Your task to perform on an android device: open chrome and create a bookmark for the current page Image 0: 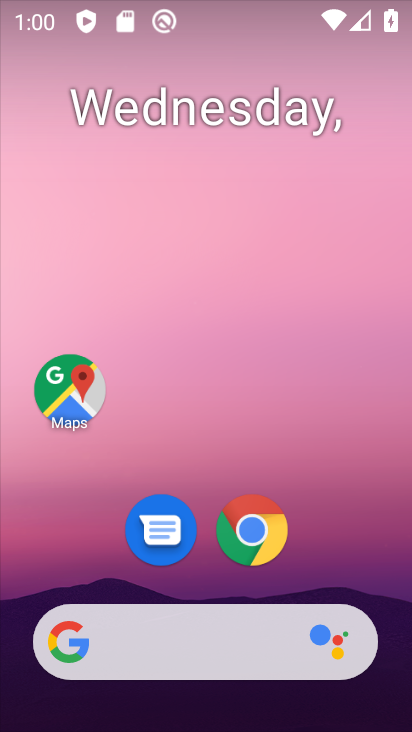
Step 0: click (261, 523)
Your task to perform on an android device: open chrome and create a bookmark for the current page Image 1: 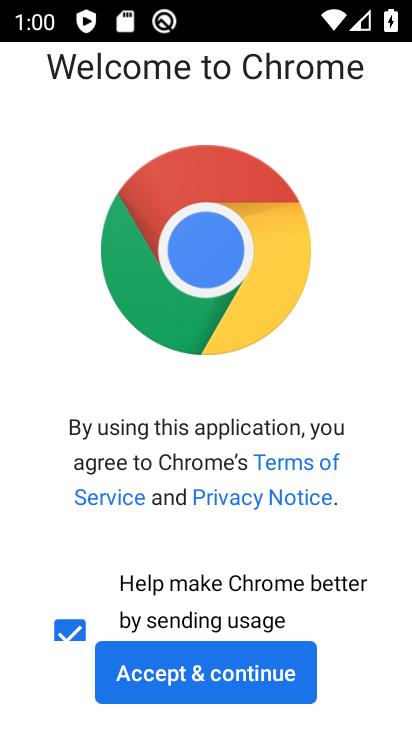
Step 1: click (267, 688)
Your task to perform on an android device: open chrome and create a bookmark for the current page Image 2: 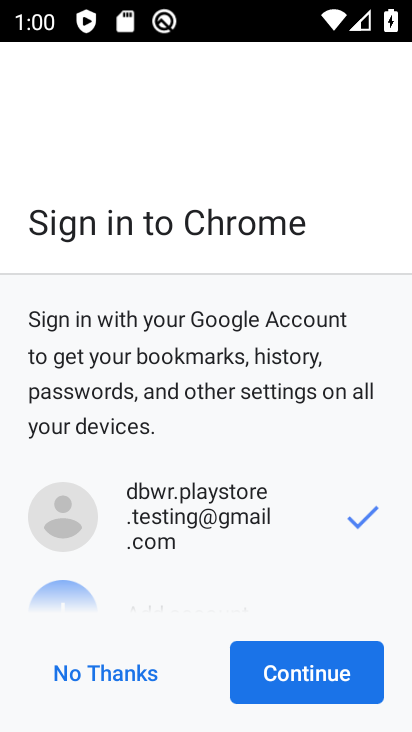
Step 2: click (333, 679)
Your task to perform on an android device: open chrome and create a bookmark for the current page Image 3: 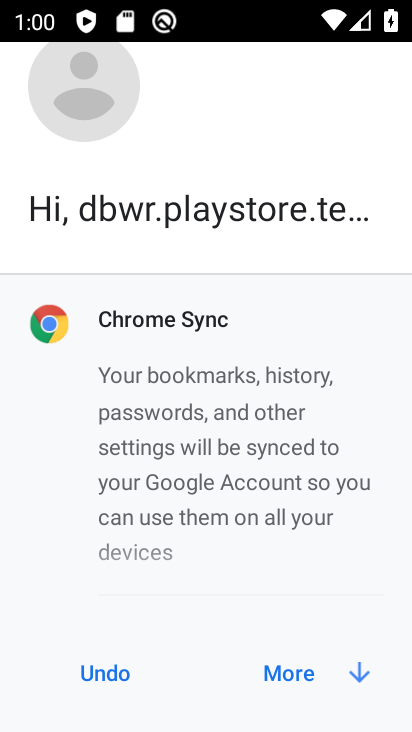
Step 3: click (333, 679)
Your task to perform on an android device: open chrome and create a bookmark for the current page Image 4: 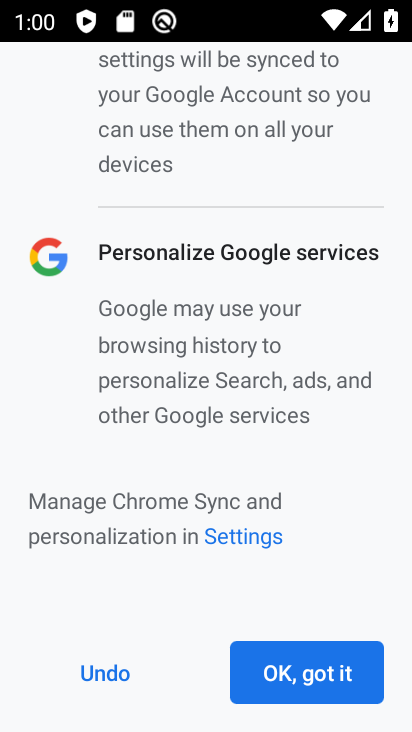
Step 4: click (333, 679)
Your task to perform on an android device: open chrome and create a bookmark for the current page Image 5: 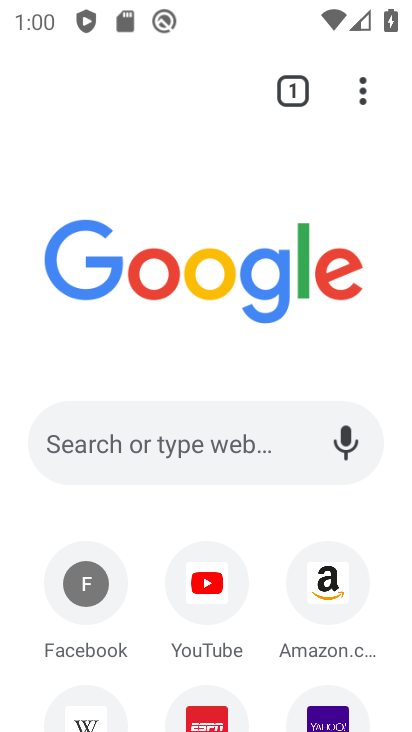
Step 5: click (377, 88)
Your task to perform on an android device: open chrome and create a bookmark for the current page Image 6: 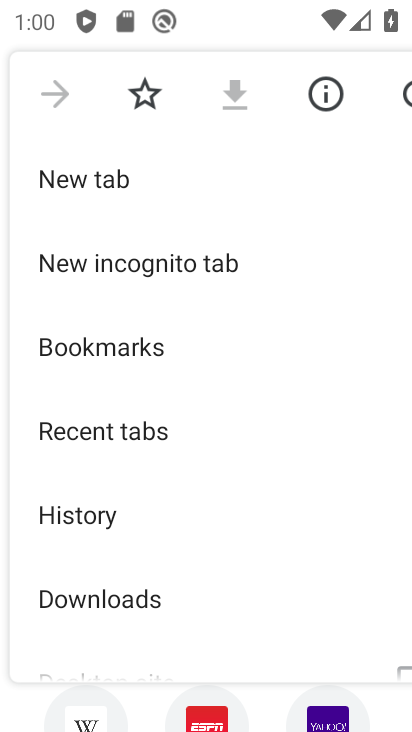
Step 6: click (160, 85)
Your task to perform on an android device: open chrome and create a bookmark for the current page Image 7: 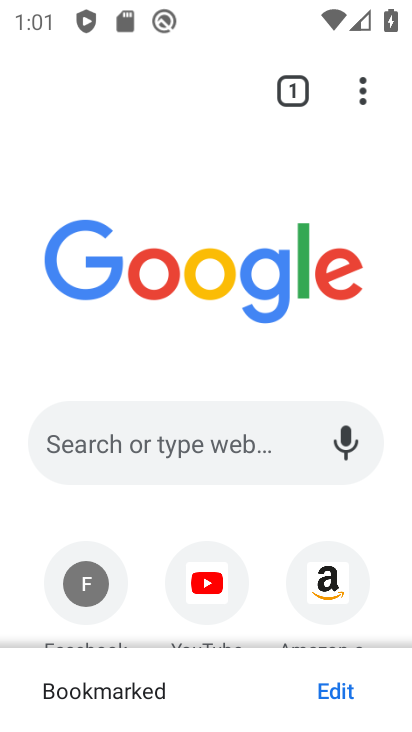
Step 7: task complete